Your task to perform on an android device: move a message to another label in the gmail app Image 0: 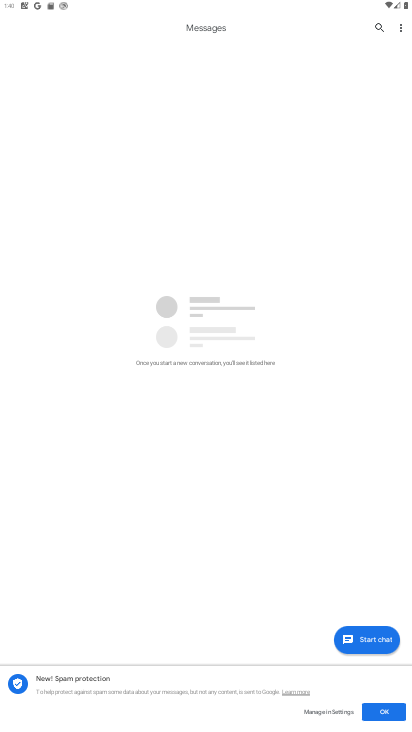
Step 0: press home button
Your task to perform on an android device: move a message to another label in the gmail app Image 1: 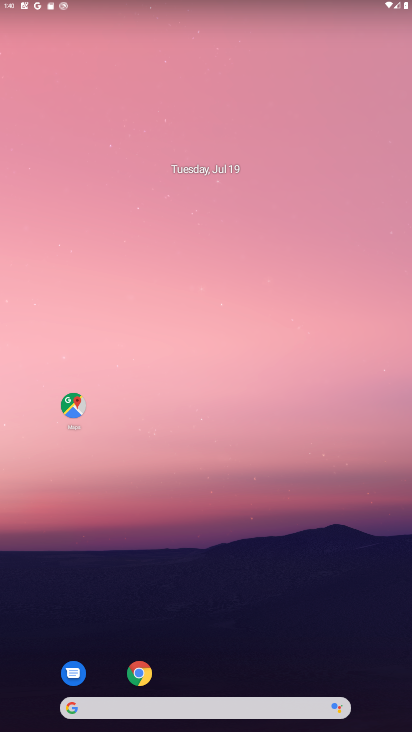
Step 1: drag from (173, 637) to (328, 0)
Your task to perform on an android device: move a message to another label in the gmail app Image 2: 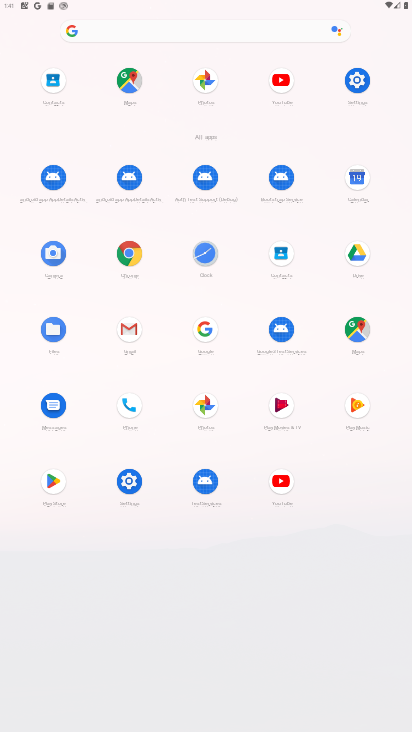
Step 2: click (115, 340)
Your task to perform on an android device: move a message to another label in the gmail app Image 3: 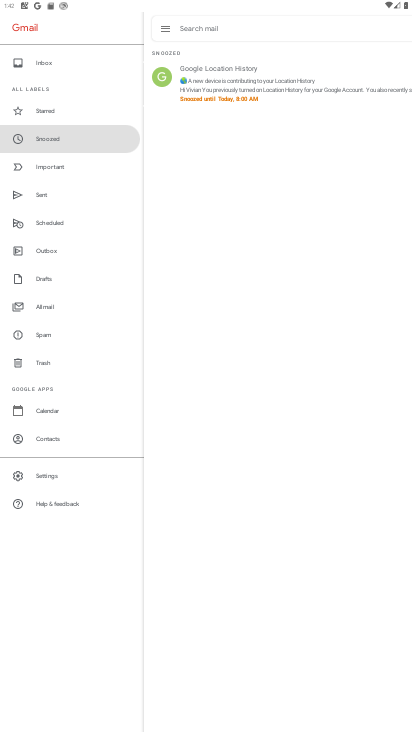
Step 3: click (232, 84)
Your task to perform on an android device: move a message to another label in the gmail app Image 4: 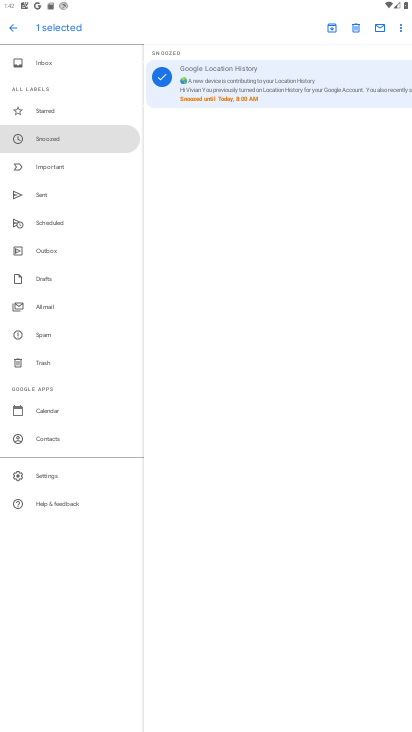
Step 4: click (399, 30)
Your task to perform on an android device: move a message to another label in the gmail app Image 5: 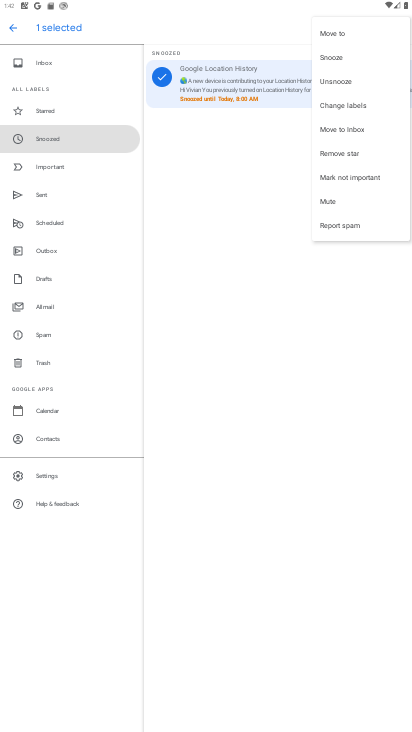
Step 5: click (361, 104)
Your task to perform on an android device: move a message to another label in the gmail app Image 6: 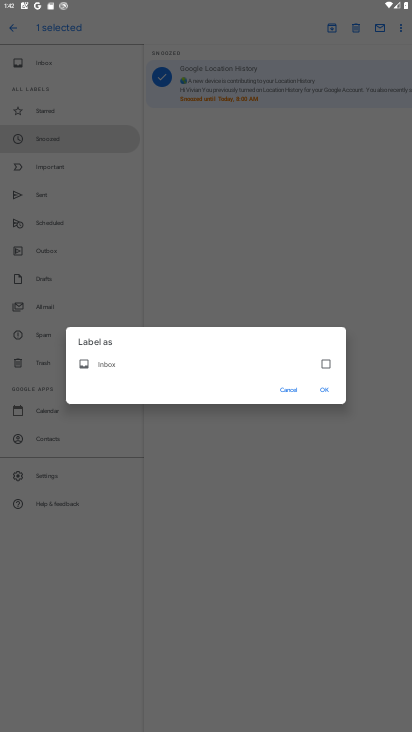
Step 6: click (325, 363)
Your task to perform on an android device: move a message to another label in the gmail app Image 7: 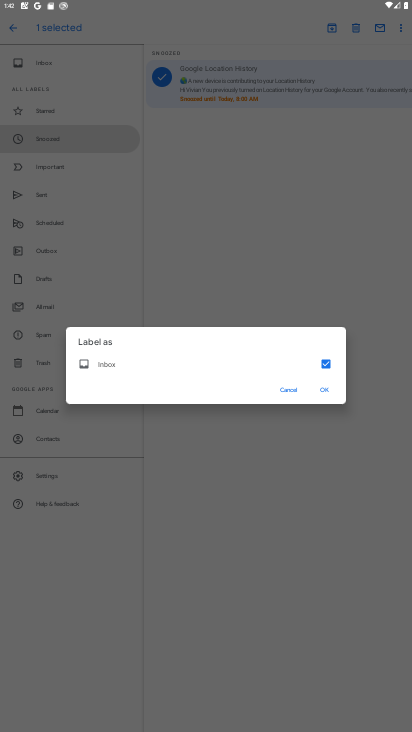
Step 7: click (322, 386)
Your task to perform on an android device: move a message to another label in the gmail app Image 8: 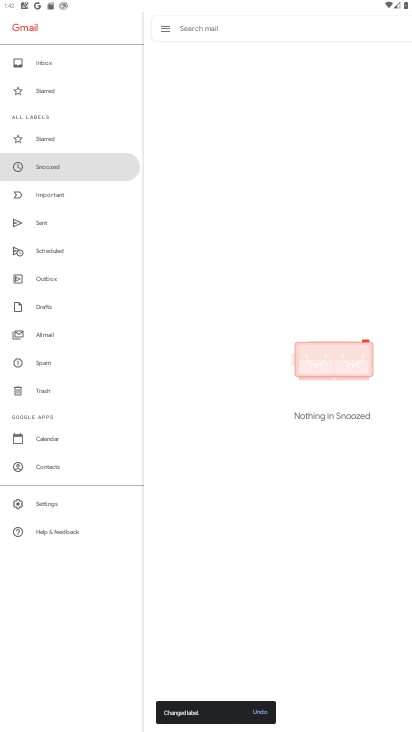
Step 8: task complete